Your task to perform on an android device: turn notification dots on Image 0: 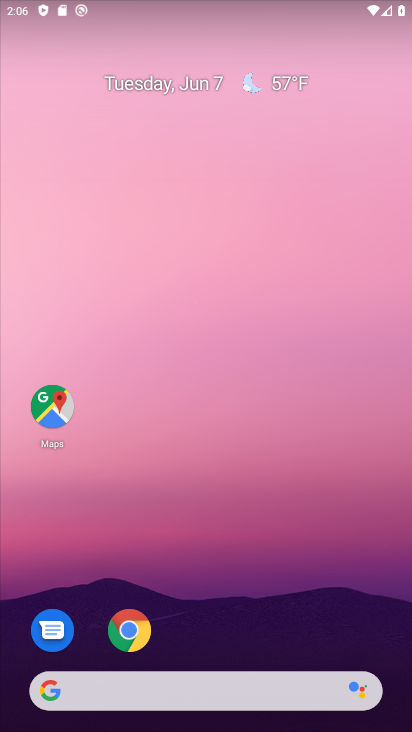
Step 0: drag from (391, 703) to (362, 222)
Your task to perform on an android device: turn notification dots on Image 1: 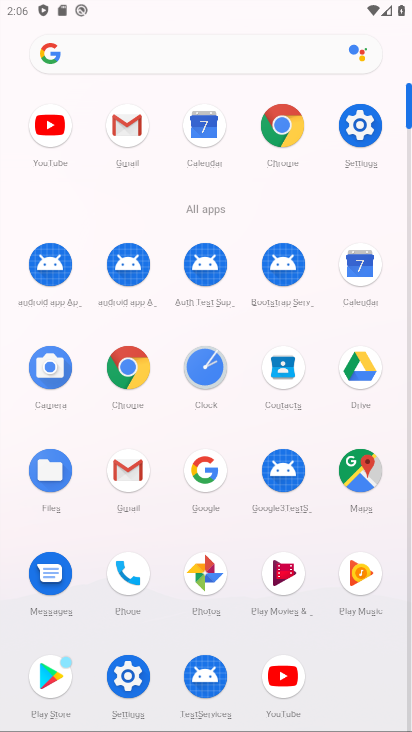
Step 1: click (371, 119)
Your task to perform on an android device: turn notification dots on Image 2: 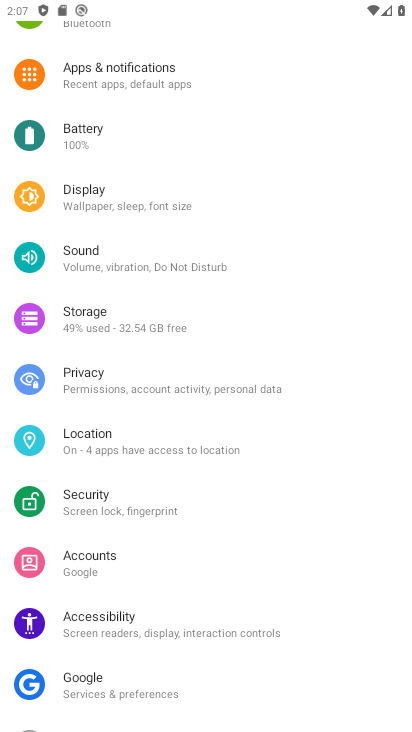
Step 2: drag from (240, 676) to (235, 259)
Your task to perform on an android device: turn notification dots on Image 3: 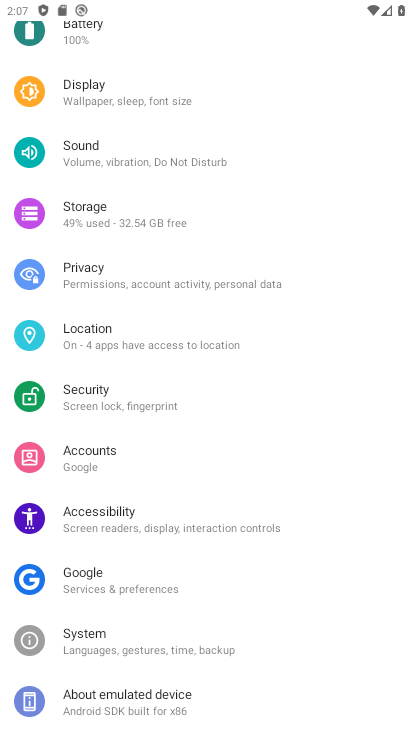
Step 3: drag from (180, 48) to (282, 584)
Your task to perform on an android device: turn notification dots on Image 4: 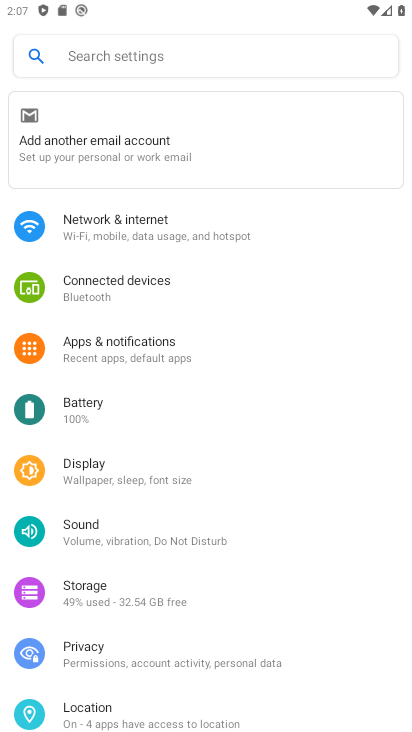
Step 4: click (122, 342)
Your task to perform on an android device: turn notification dots on Image 5: 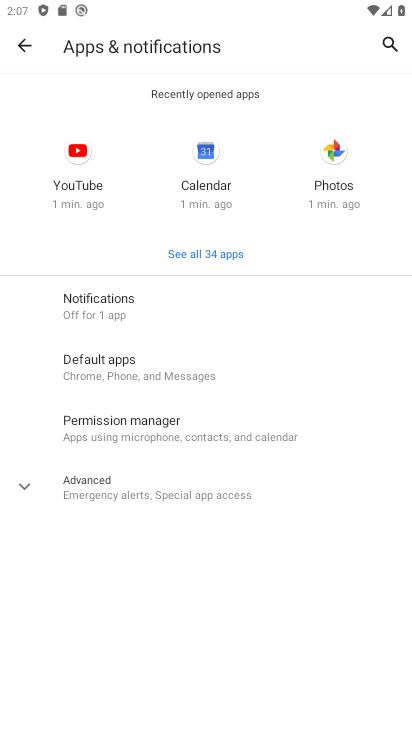
Step 5: click (106, 297)
Your task to perform on an android device: turn notification dots on Image 6: 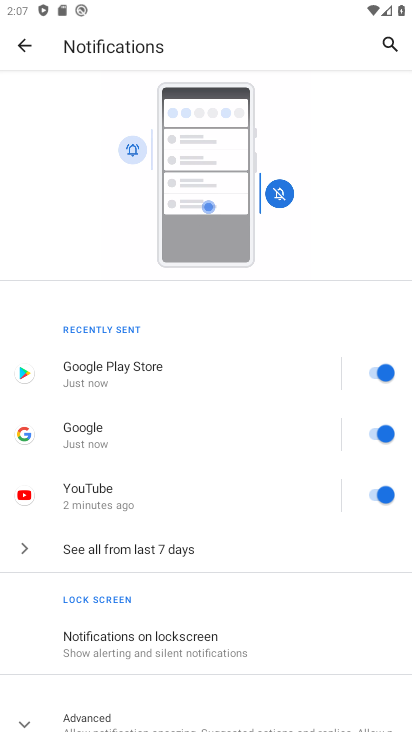
Step 6: drag from (235, 700) to (190, 259)
Your task to perform on an android device: turn notification dots on Image 7: 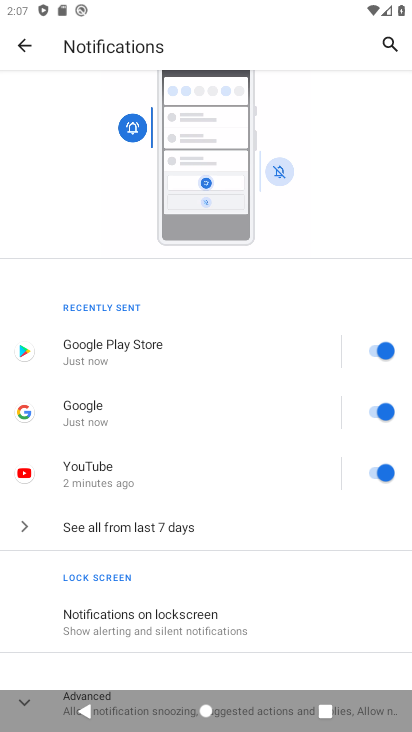
Step 7: click (96, 690)
Your task to perform on an android device: turn notification dots on Image 8: 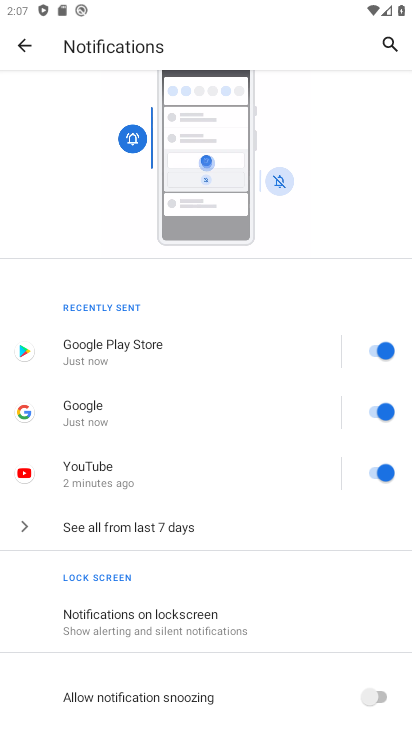
Step 8: task complete